Your task to perform on an android device: turn on the 24-hour format for clock Image 0: 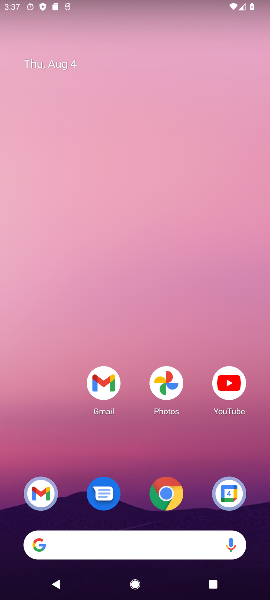
Step 0: drag from (39, 538) to (141, 103)
Your task to perform on an android device: turn on the 24-hour format for clock Image 1: 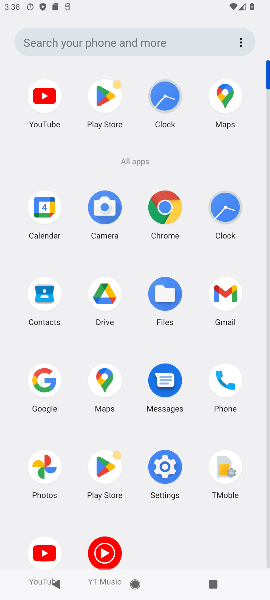
Step 1: click (216, 199)
Your task to perform on an android device: turn on the 24-hour format for clock Image 2: 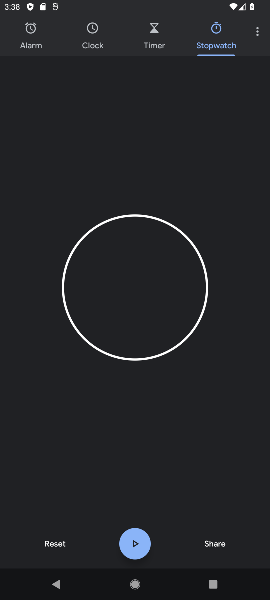
Step 2: click (256, 32)
Your task to perform on an android device: turn on the 24-hour format for clock Image 3: 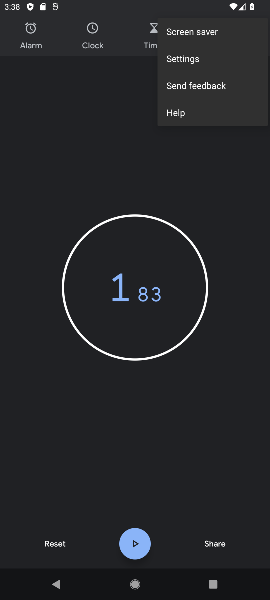
Step 3: click (190, 61)
Your task to perform on an android device: turn on the 24-hour format for clock Image 4: 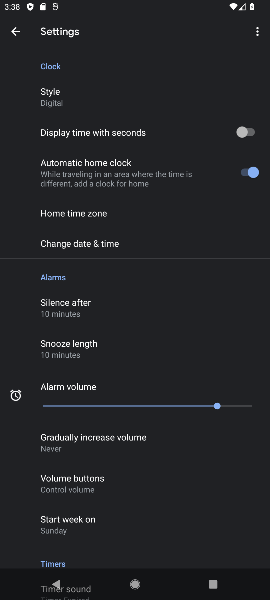
Step 4: drag from (134, 132) to (125, 50)
Your task to perform on an android device: turn on the 24-hour format for clock Image 5: 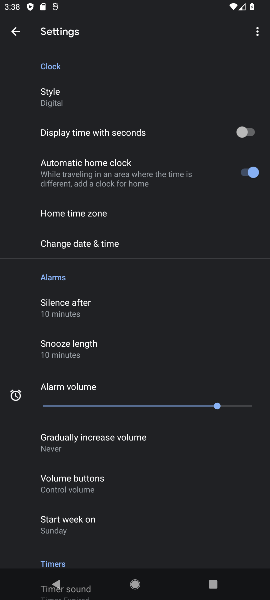
Step 5: drag from (122, 498) to (121, 100)
Your task to perform on an android device: turn on the 24-hour format for clock Image 6: 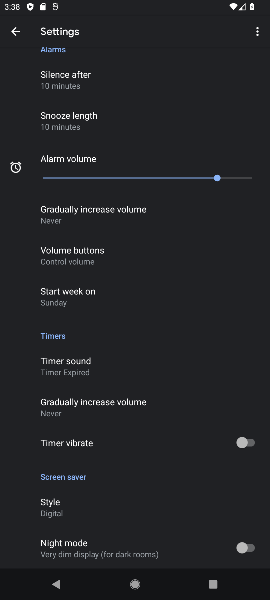
Step 6: drag from (105, 508) to (159, 1)
Your task to perform on an android device: turn on the 24-hour format for clock Image 7: 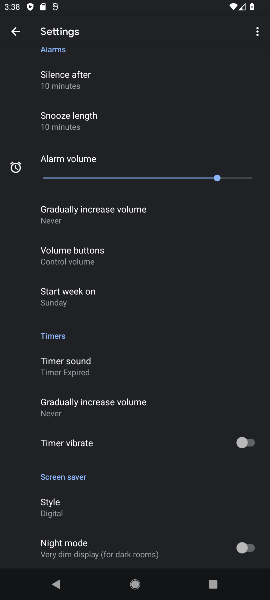
Step 7: drag from (95, 541) to (98, 328)
Your task to perform on an android device: turn on the 24-hour format for clock Image 8: 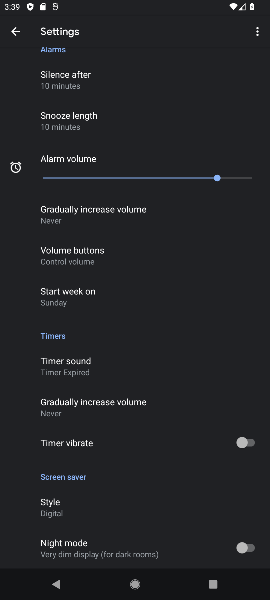
Step 8: drag from (108, 98) to (77, 457)
Your task to perform on an android device: turn on the 24-hour format for clock Image 9: 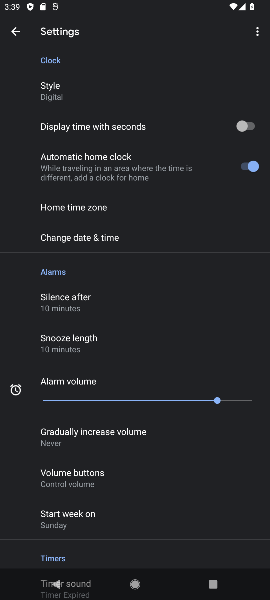
Step 9: click (93, 233)
Your task to perform on an android device: turn on the 24-hour format for clock Image 10: 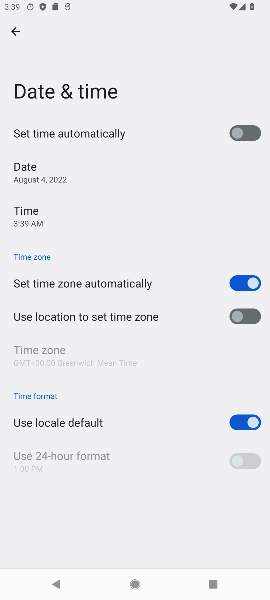
Step 10: click (219, 448)
Your task to perform on an android device: turn on the 24-hour format for clock Image 11: 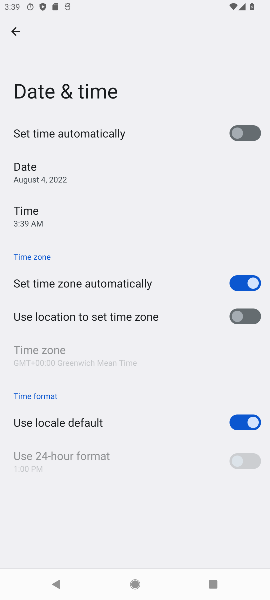
Step 11: click (243, 465)
Your task to perform on an android device: turn on the 24-hour format for clock Image 12: 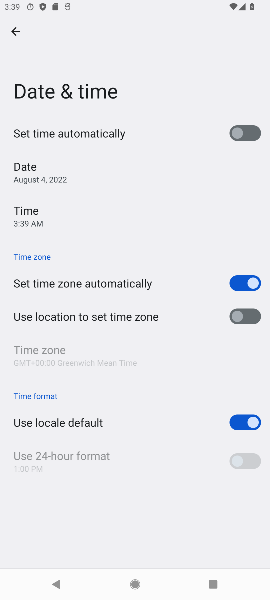
Step 12: click (241, 421)
Your task to perform on an android device: turn on the 24-hour format for clock Image 13: 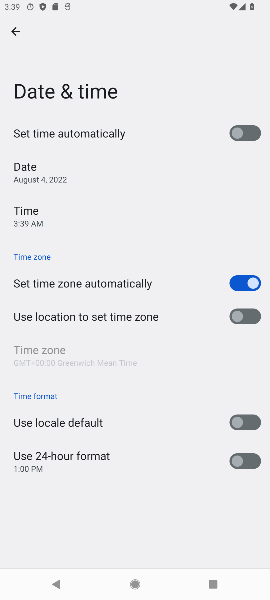
Step 13: click (241, 462)
Your task to perform on an android device: turn on the 24-hour format for clock Image 14: 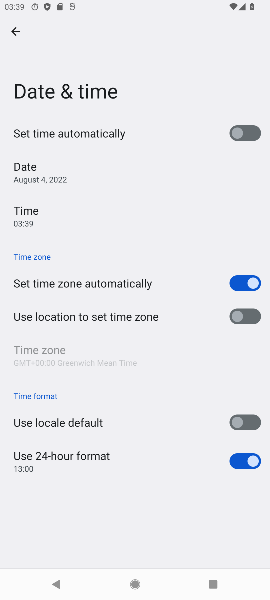
Step 14: task complete